Your task to perform on an android device: Open display settings Image 0: 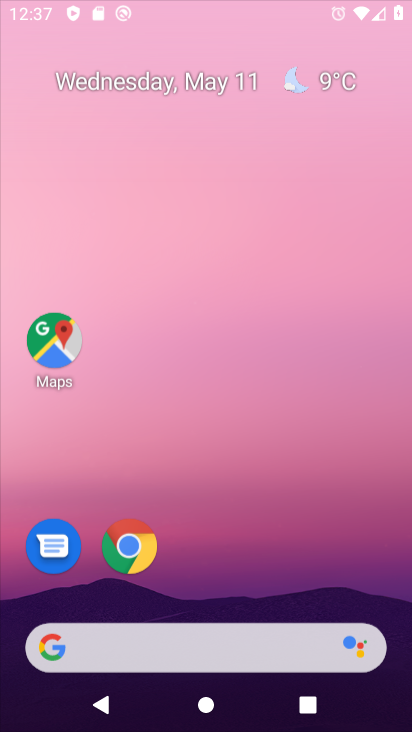
Step 0: click (329, 179)
Your task to perform on an android device: Open display settings Image 1: 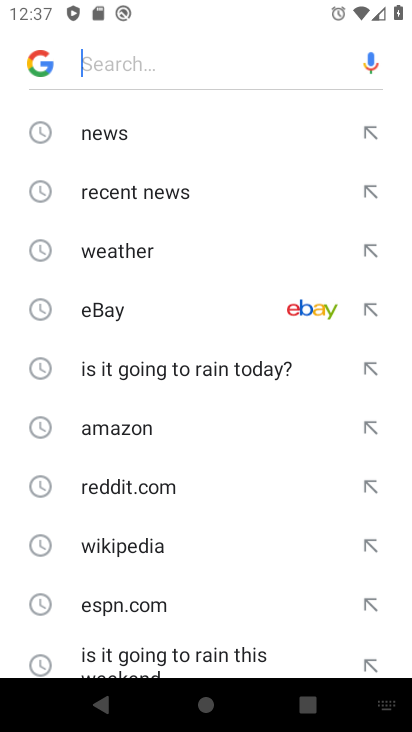
Step 1: press home button
Your task to perform on an android device: Open display settings Image 2: 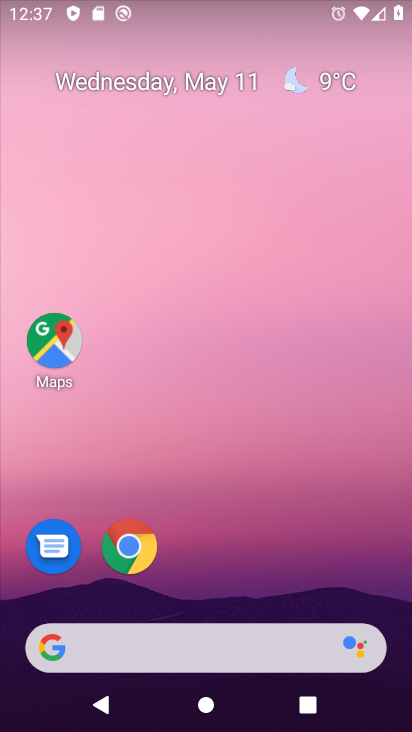
Step 2: drag from (193, 578) to (286, 164)
Your task to perform on an android device: Open display settings Image 3: 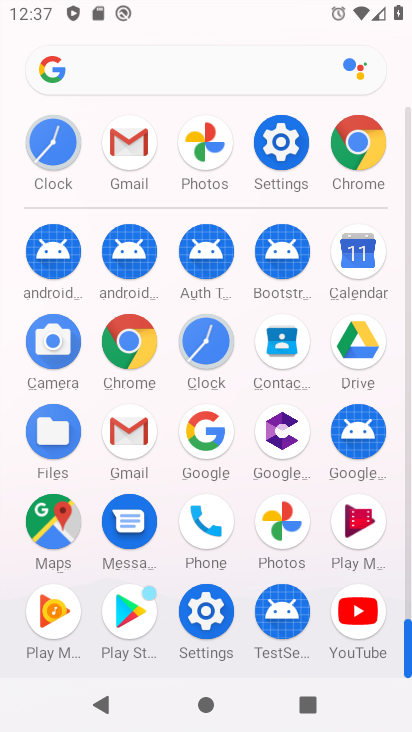
Step 3: click (198, 608)
Your task to perform on an android device: Open display settings Image 4: 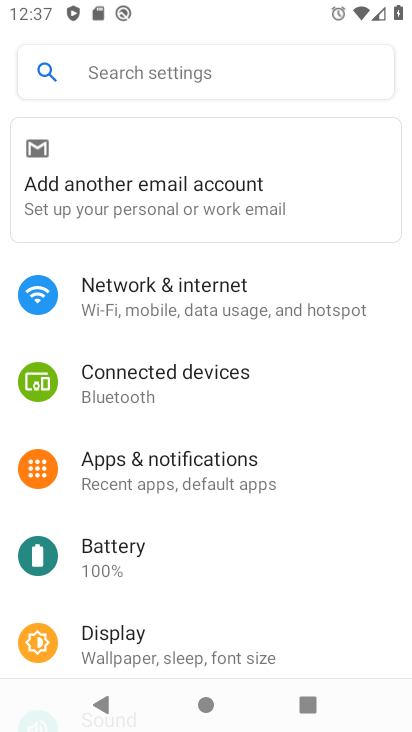
Step 4: drag from (202, 619) to (237, 287)
Your task to perform on an android device: Open display settings Image 5: 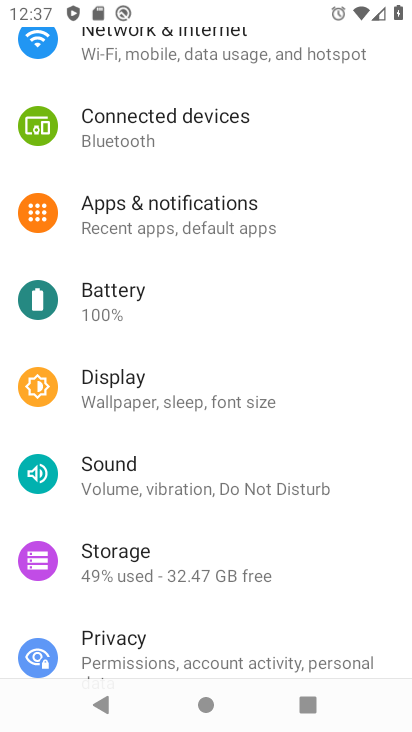
Step 5: drag from (174, 638) to (267, 235)
Your task to perform on an android device: Open display settings Image 6: 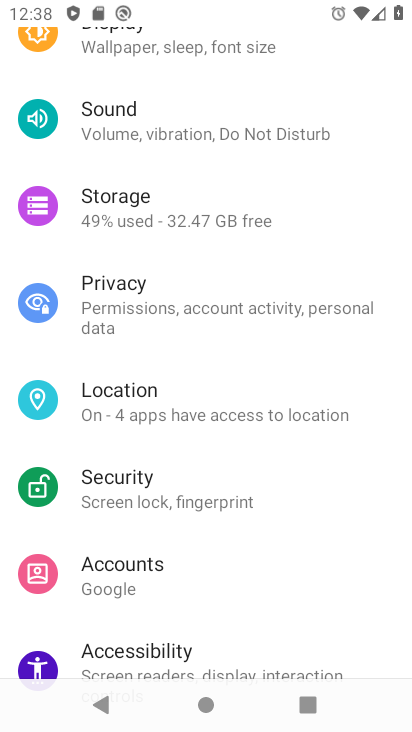
Step 6: click (160, 41)
Your task to perform on an android device: Open display settings Image 7: 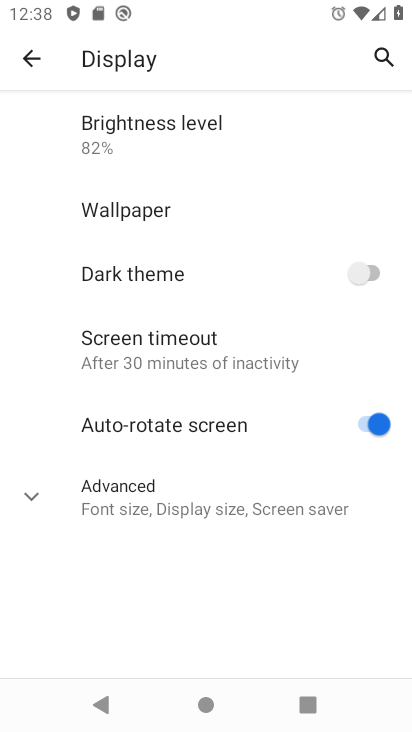
Step 7: task complete